Your task to perform on an android device: Open Reddit.com Image 0: 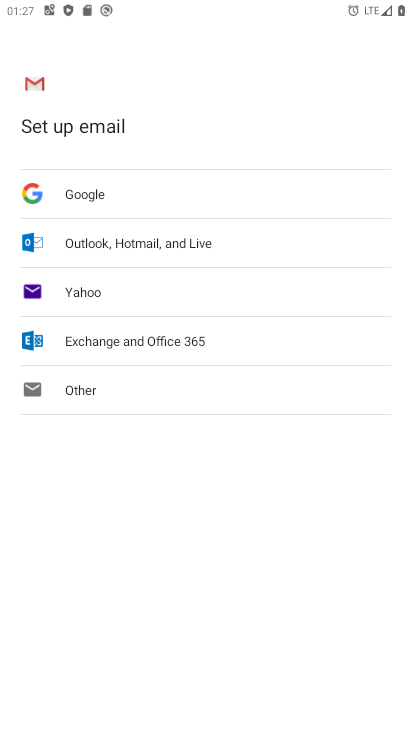
Step 0: press home button
Your task to perform on an android device: Open Reddit.com Image 1: 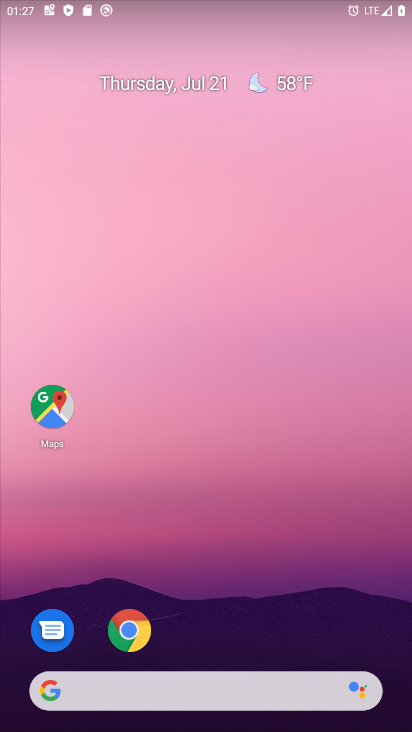
Step 1: click (187, 689)
Your task to perform on an android device: Open Reddit.com Image 2: 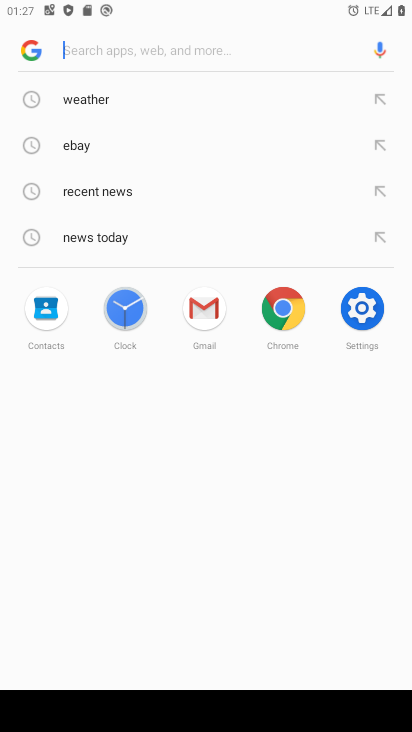
Step 2: type "reddit"
Your task to perform on an android device: Open Reddit.com Image 3: 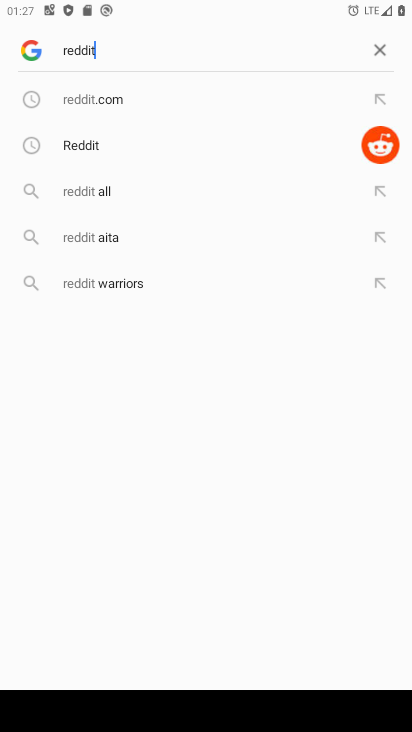
Step 3: click (120, 156)
Your task to perform on an android device: Open Reddit.com Image 4: 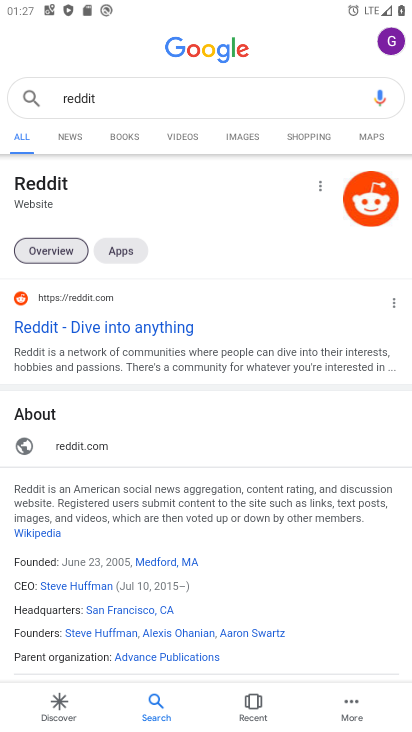
Step 4: click (106, 328)
Your task to perform on an android device: Open Reddit.com Image 5: 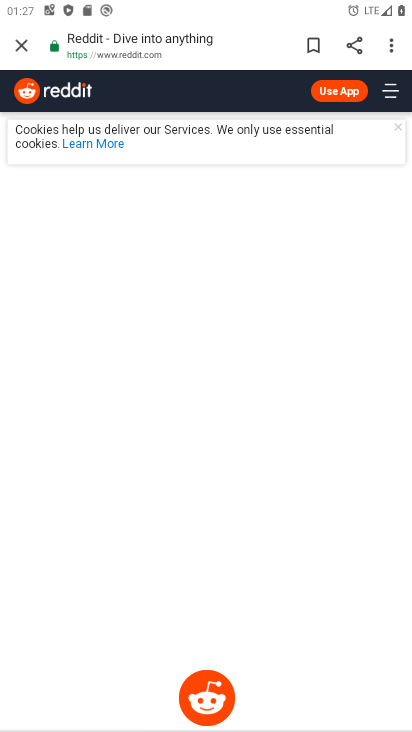
Step 5: task complete